Your task to perform on an android device: turn on showing notifications on the lock screen Image 0: 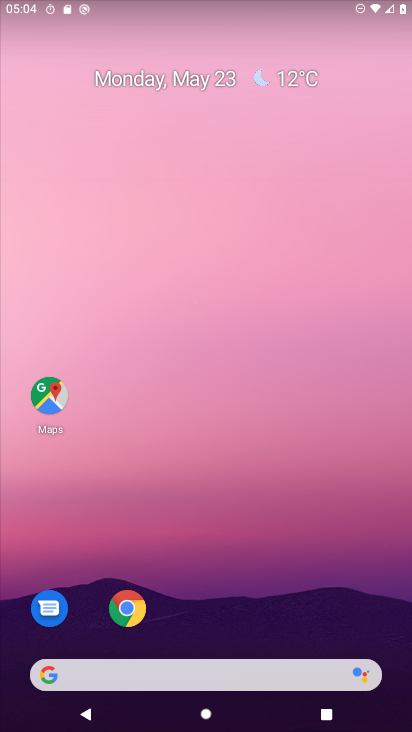
Step 0: drag from (292, 565) to (241, 0)
Your task to perform on an android device: turn on showing notifications on the lock screen Image 1: 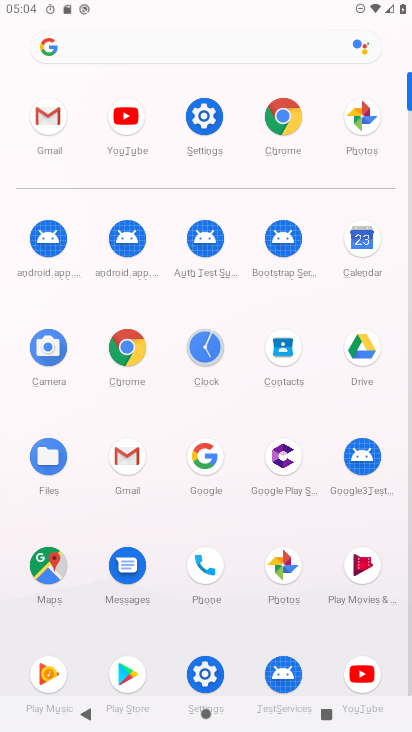
Step 1: click (204, 124)
Your task to perform on an android device: turn on showing notifications on the lock screen Image 2: 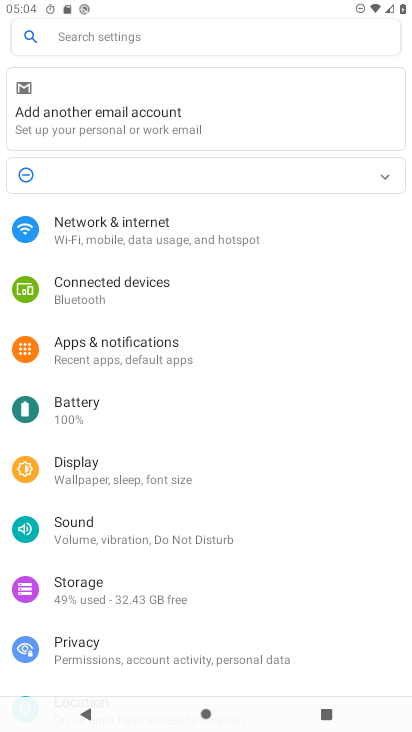
Step 2: click (170, 369)
Your task to perform on an android device: turn on showing notifications on the lock screen Image 3: 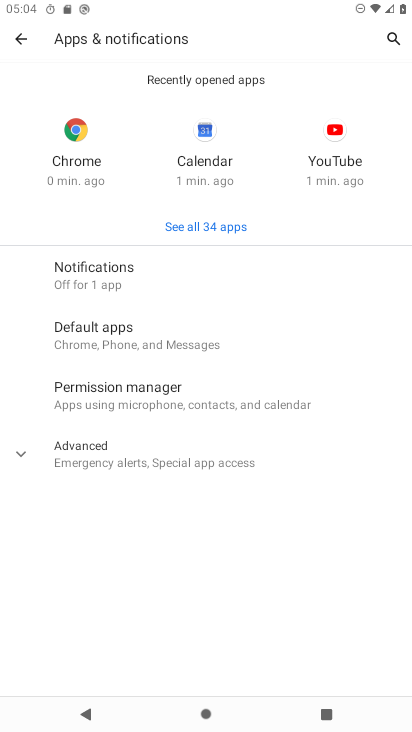
Step 3: click (188, 272)
Your task to perform on an android device: turn on showing notifications on the lock screen Image 4: 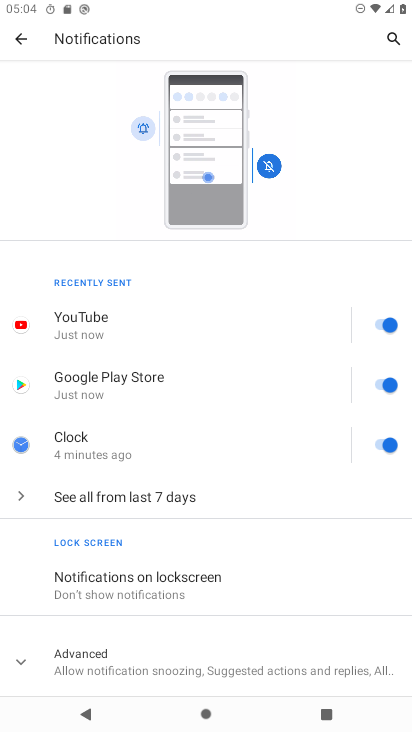
Step 4: click (209, 582)
Your task to perform on an android device: turn on showing notifications on the lock screen Image 5: 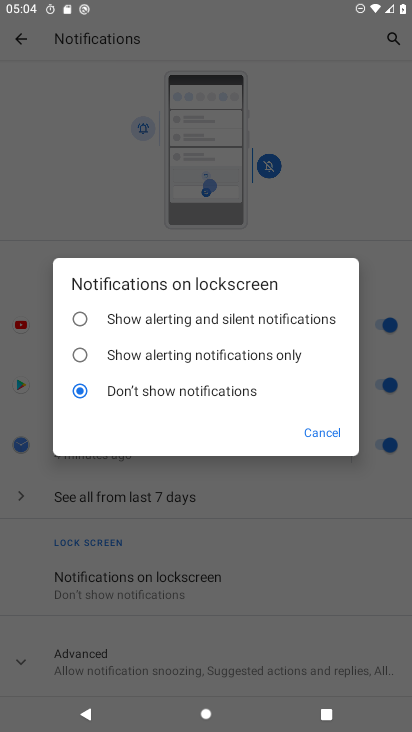
Step 5: click (203, 314)
Your task to perform on an android device: turn on showing notifications on the lock screen Image 6: 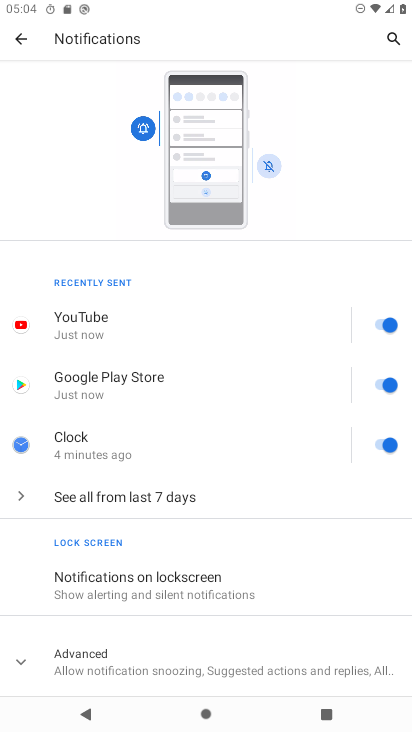
Step 6: task complete